Your task to perform on an android device: change the upload size in google photos Image 0: 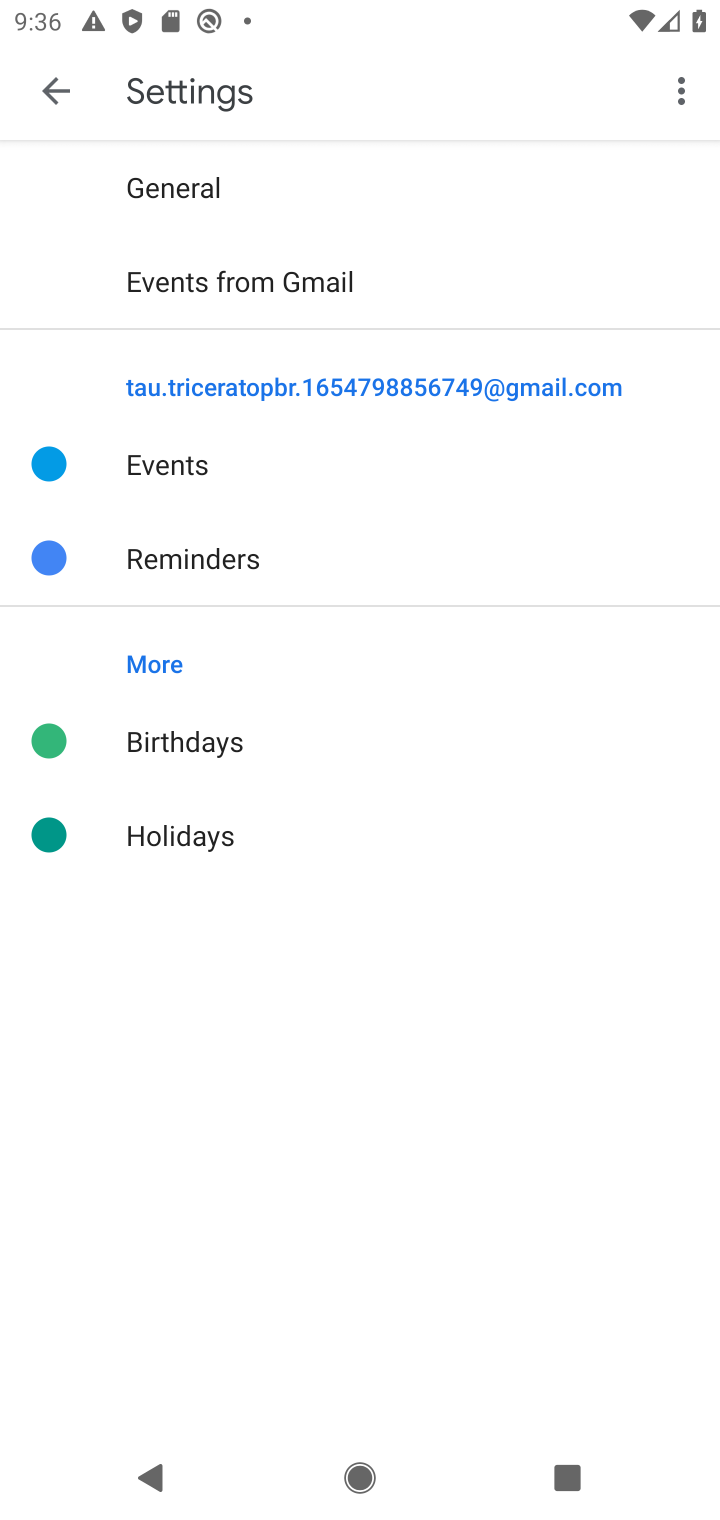
Step 0: press home button
Your task to perform on an android device: change the upload size in google photos Image 1: 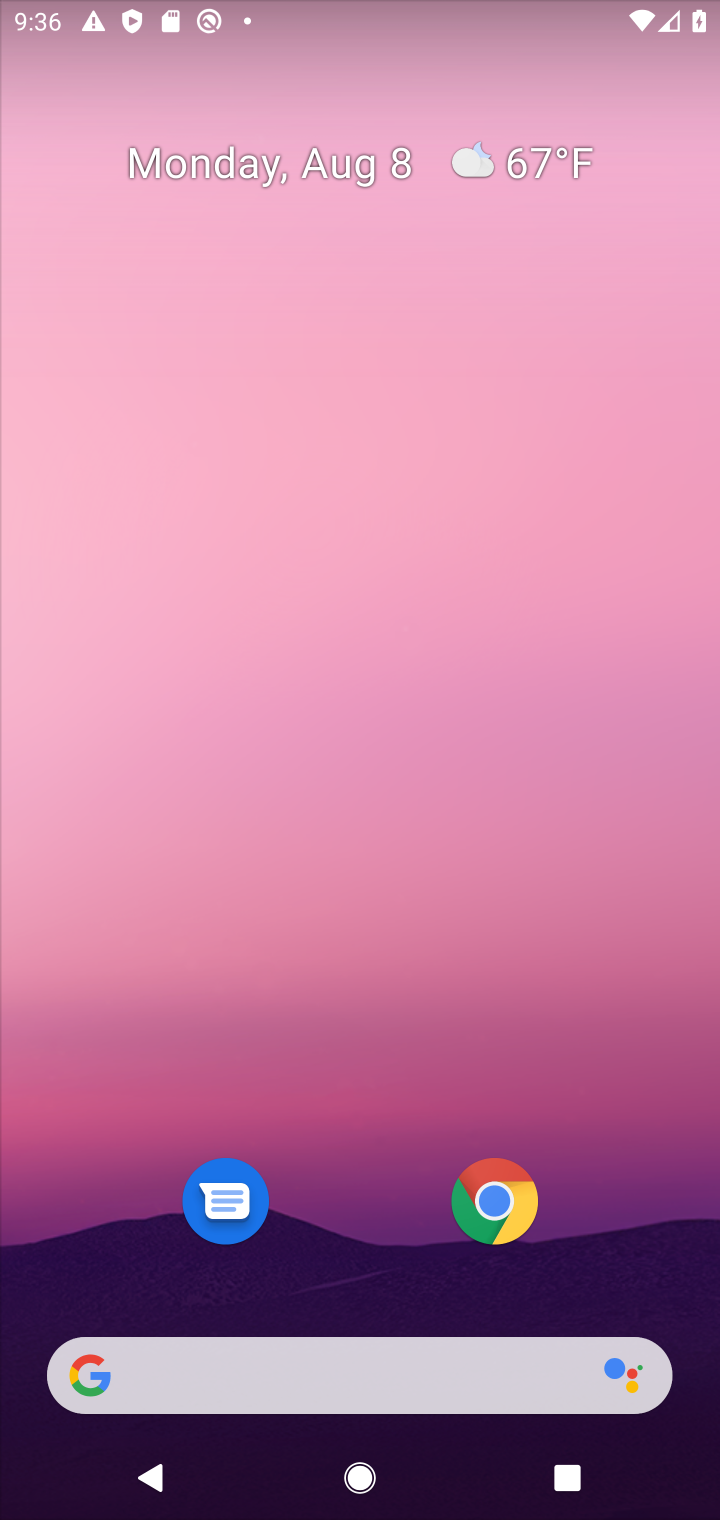
Step 1: press home button
Your task to perform on an android device: change the upload size in google photos Image 2: 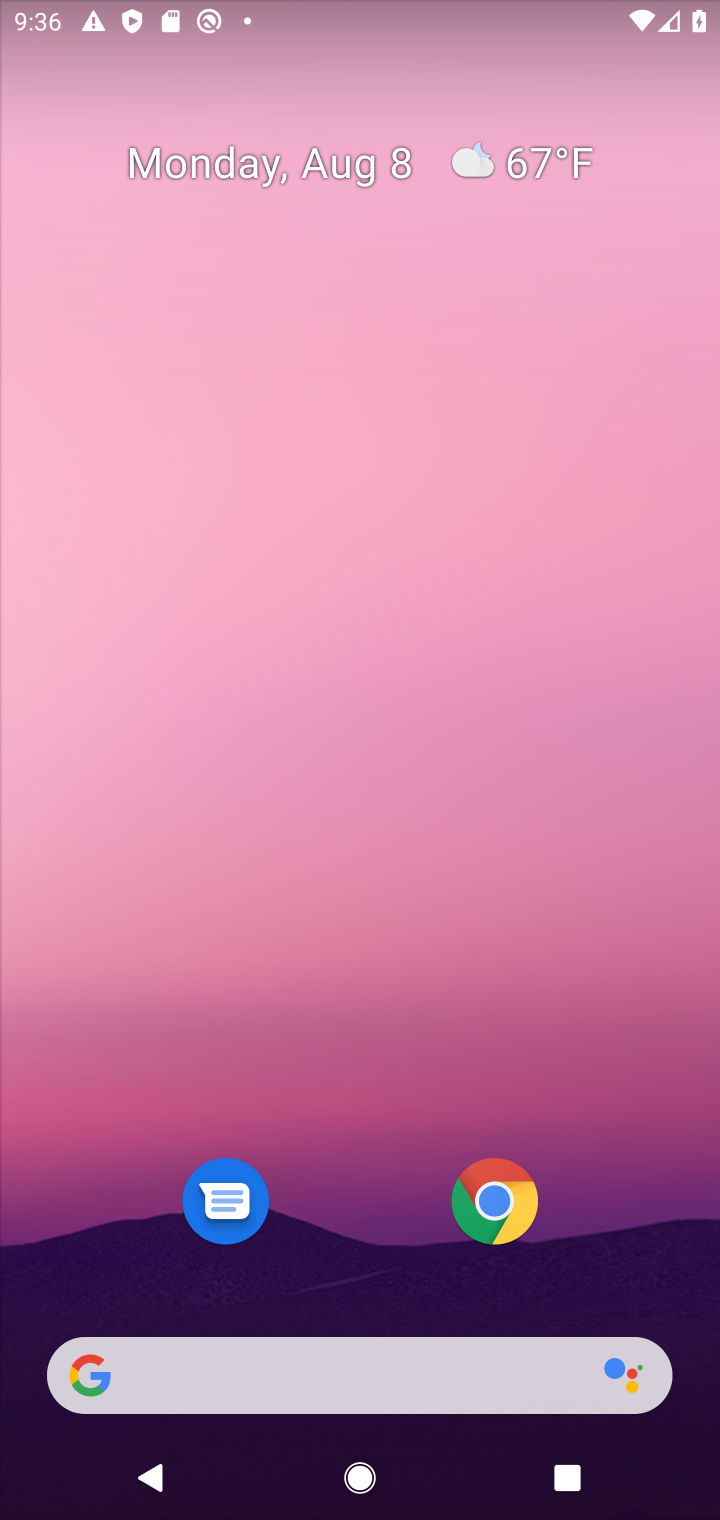
Step 2: drag from (582, 1232) to (596, 276)
Your task to perform on an android device: change the upload size in google photos Image 3: 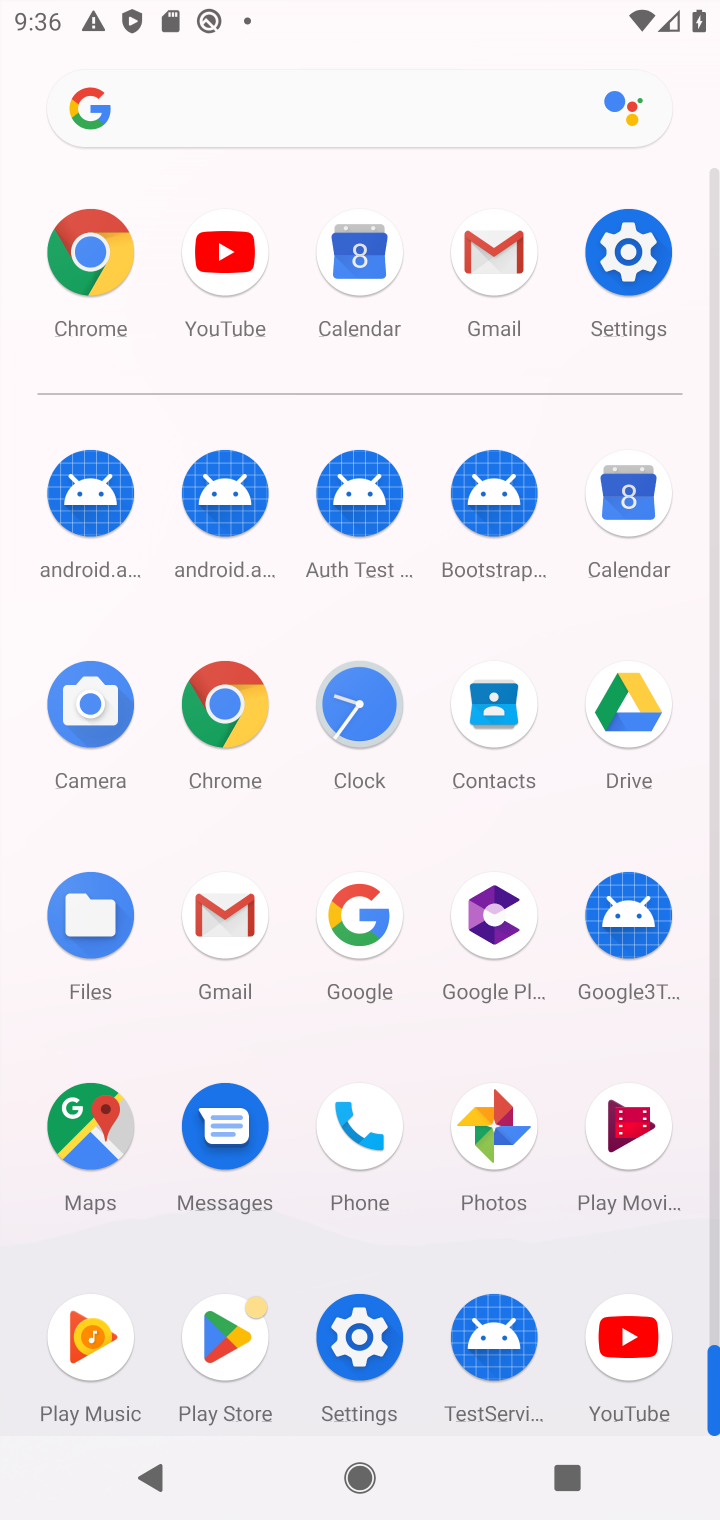
Step 3: click (486, 1154)
Your task to perform on an android device: change the upload size in google photos Image 4: 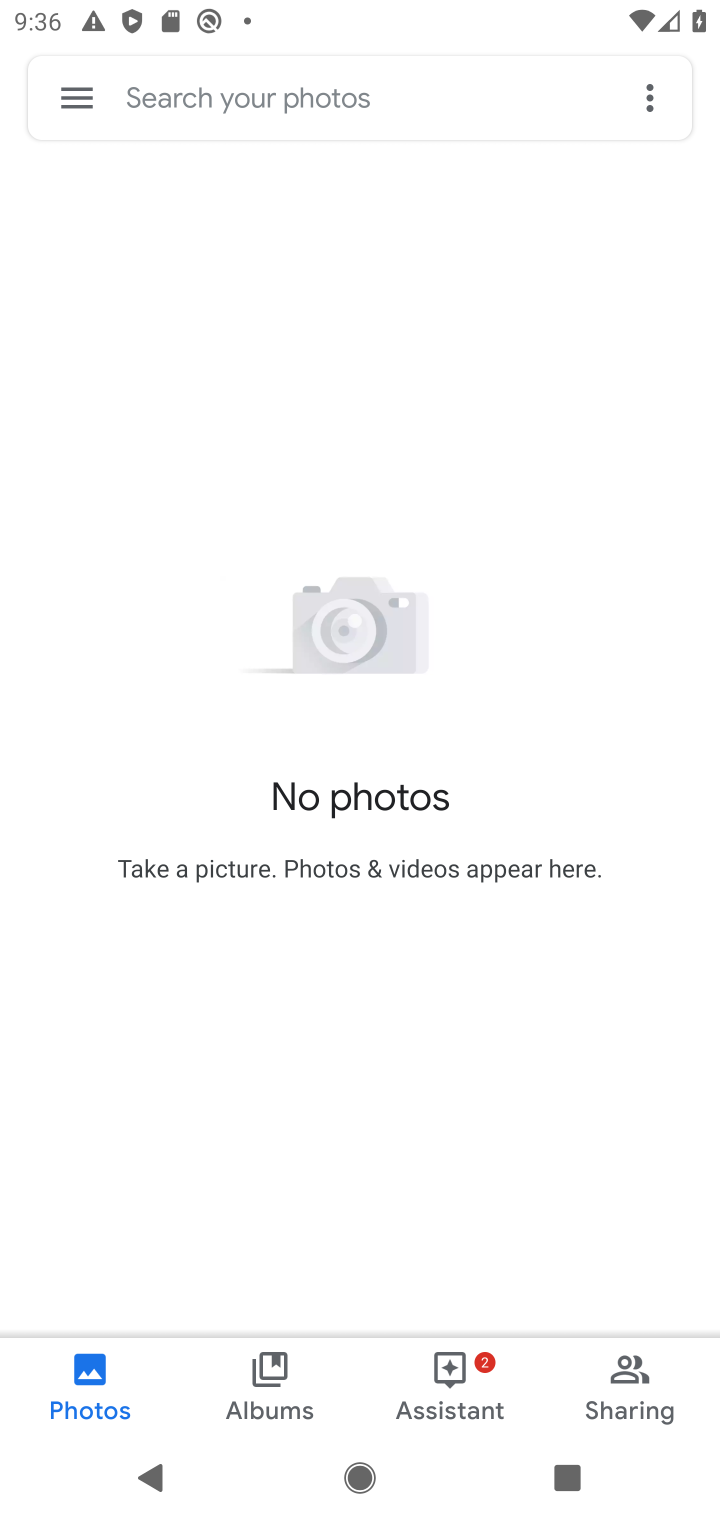
Step 4: click (77, 97)
Your task to perform on an android device: change the upload size in google photos Image 5: 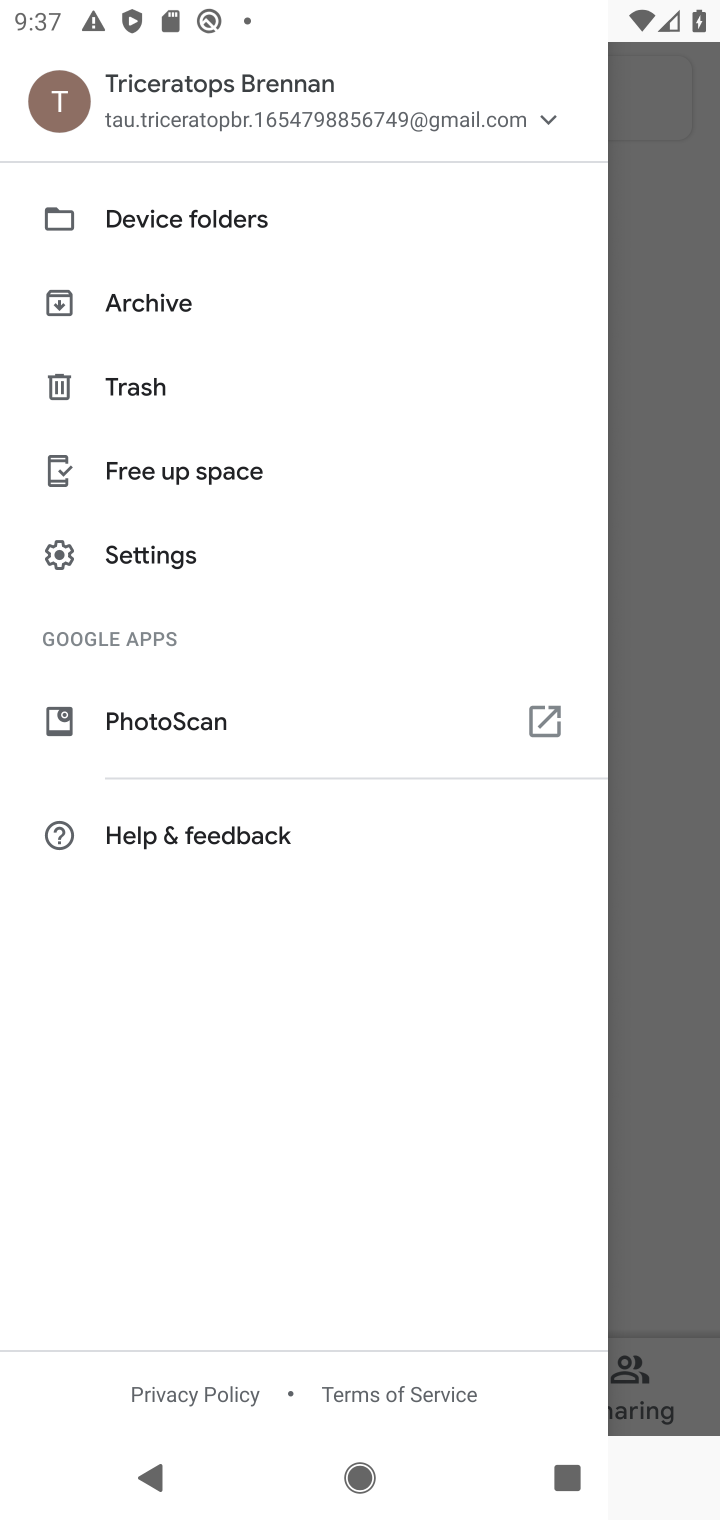
Step 5: click (200, 566)
Your task to perform on an android device: change the upload size in google photos Image 6: 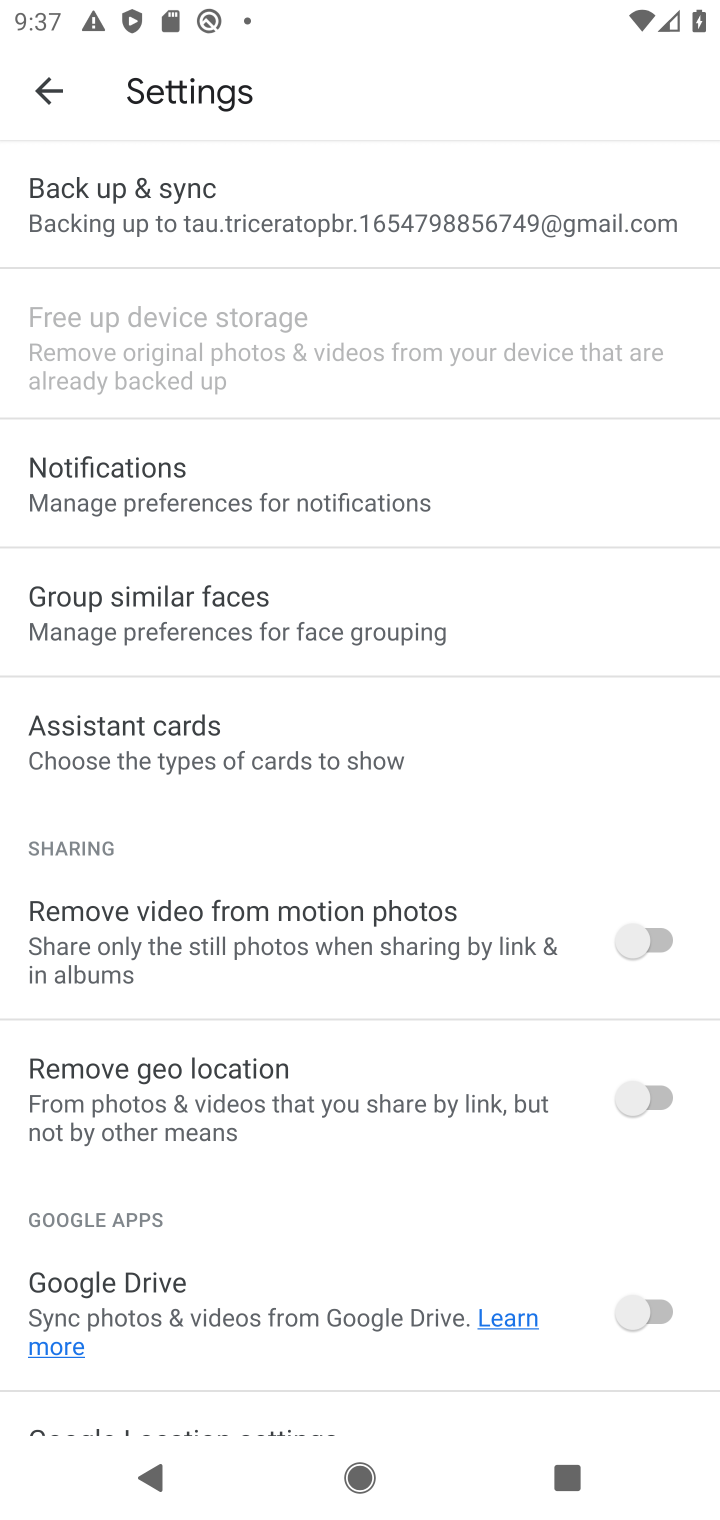
Step 6: click (234, 217)
Your task to perform on an android device: change the upload size in google photos Image 7: 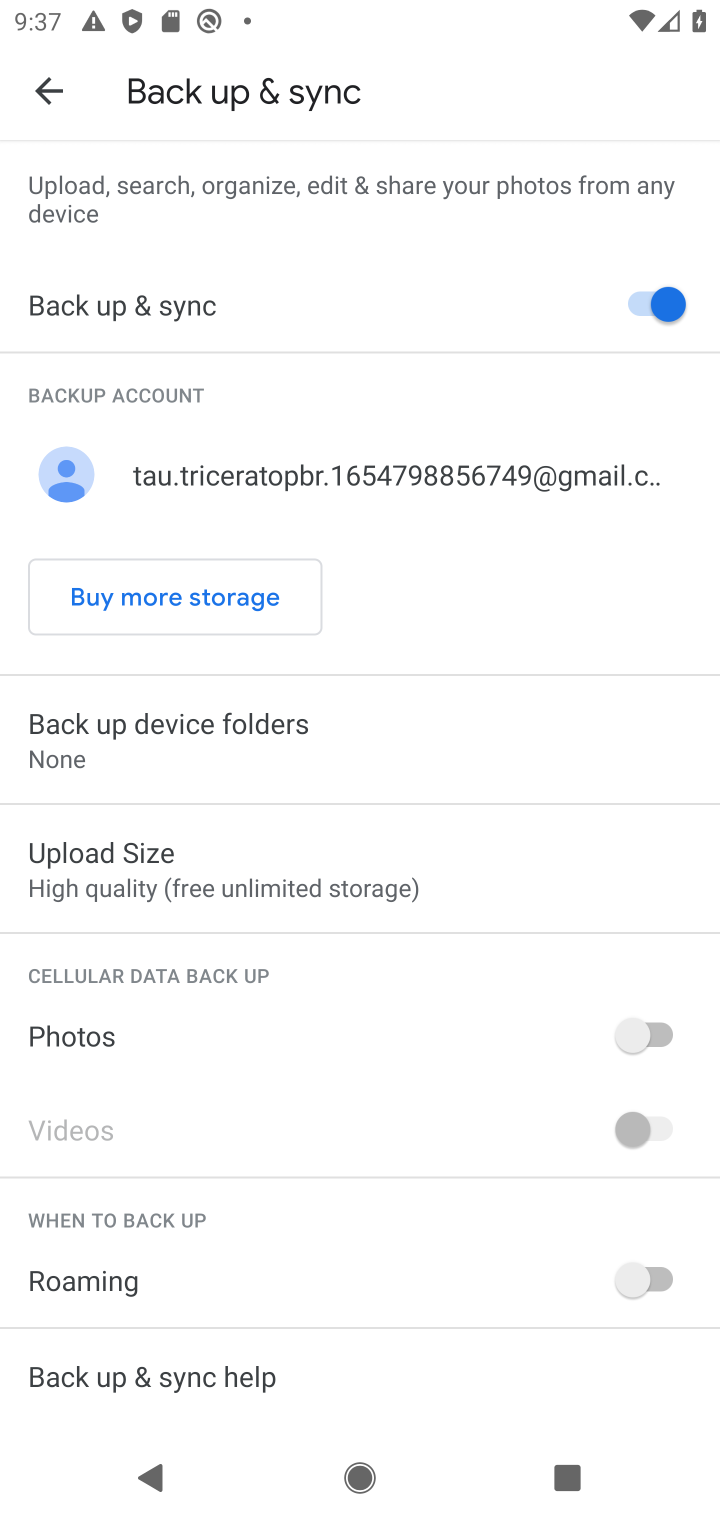
Step 7: click (234, 869)
Your task to perform on an android device: change the upload size in google photos Image 8: 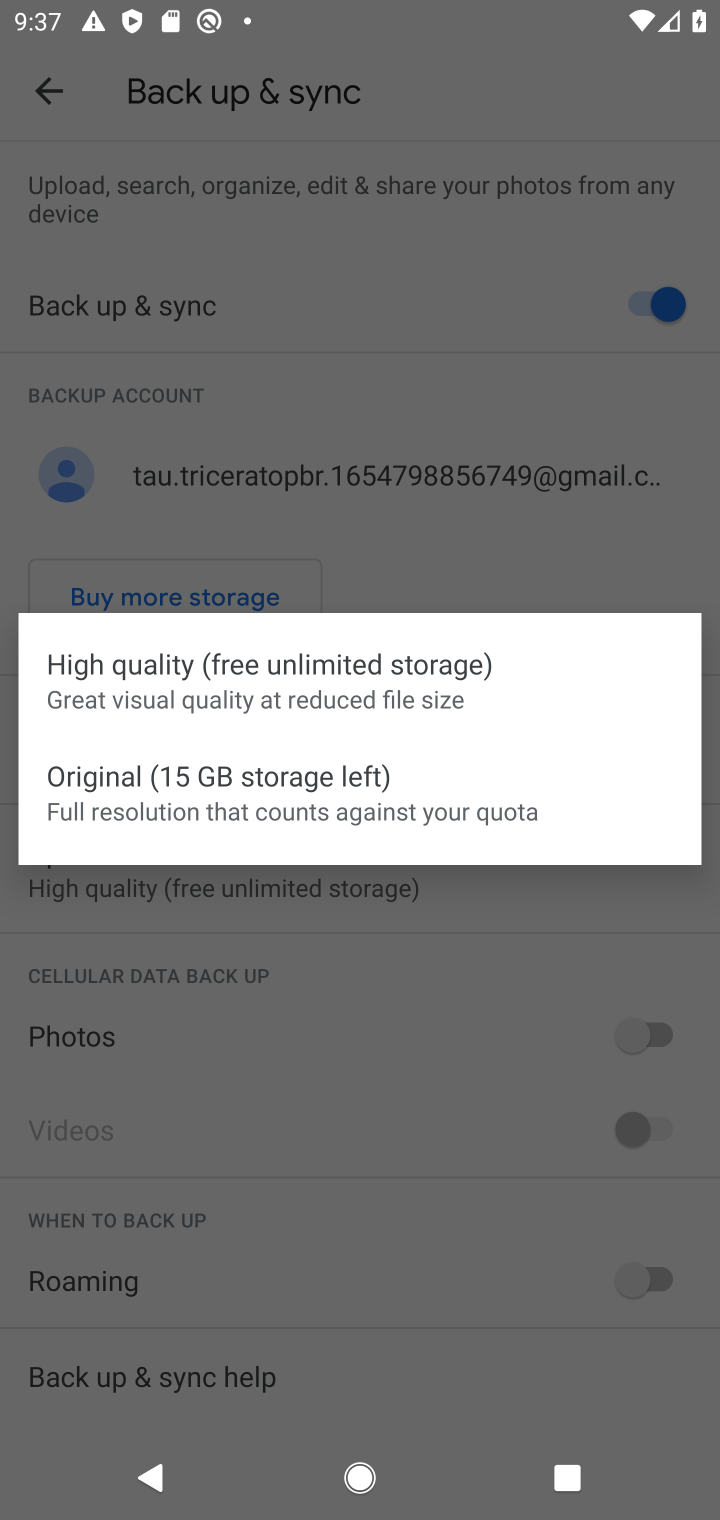
Step 8: click (208, 791)
Your task to perform on an android device: change the upload size in google photos Image 9: 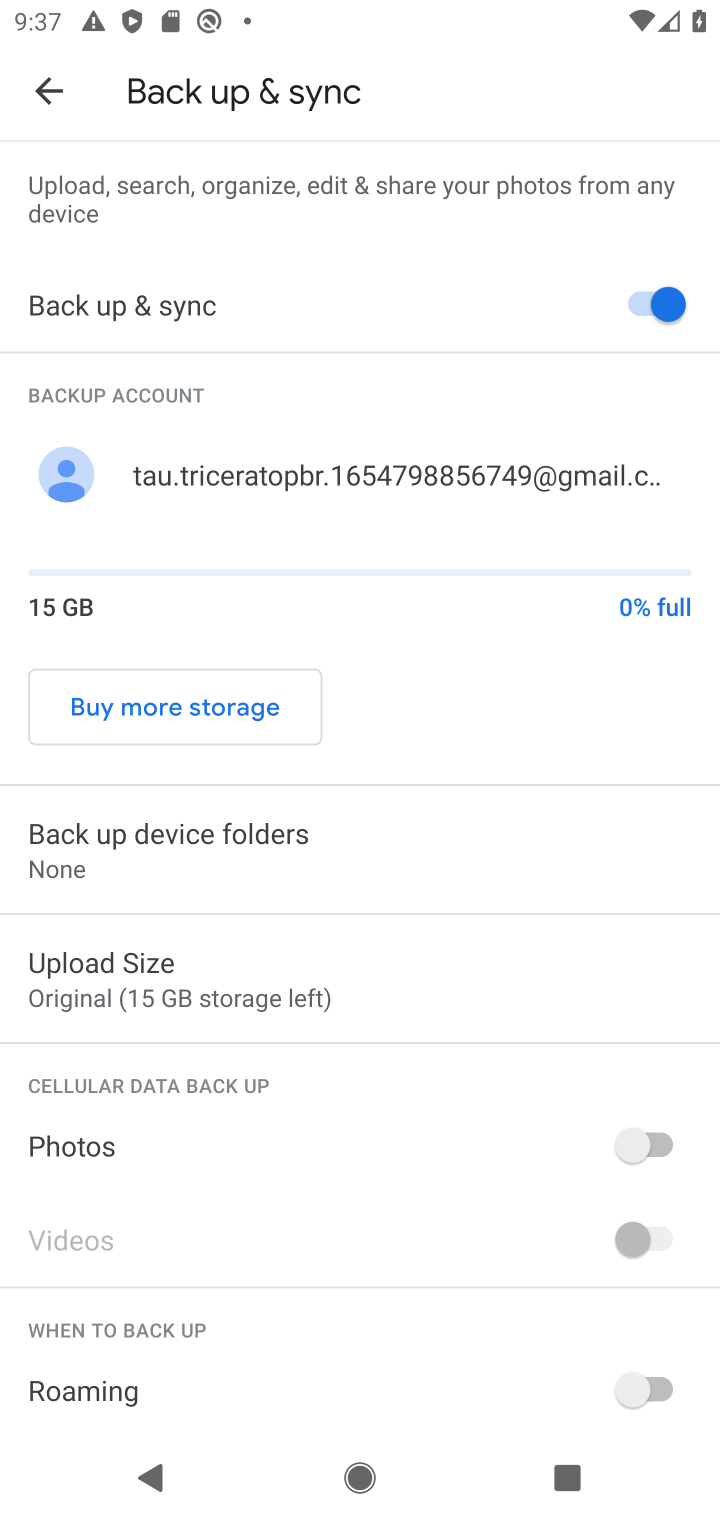
Step 9: task complete